Your task to perform on an android device: turn notification dots on Image 0: 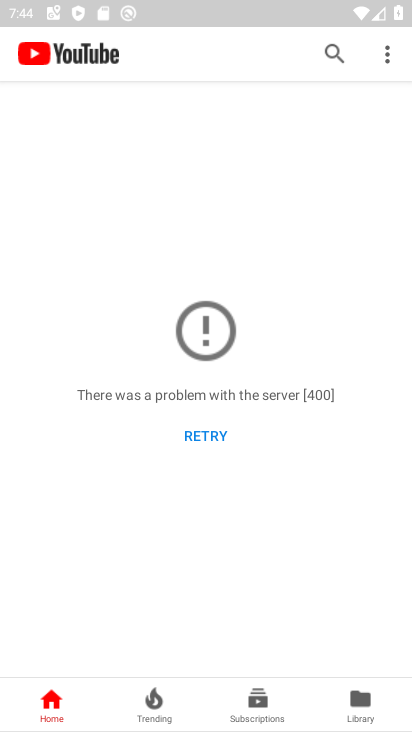
Step 0: press home button
Your task to perform on an android device: turn notification dots on Image 1: 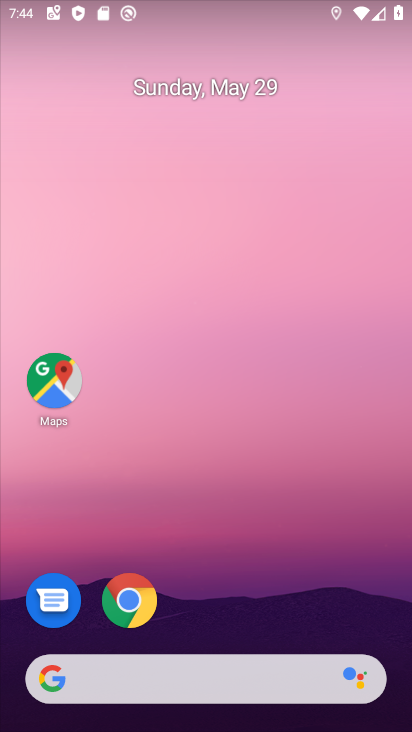
Step 1: click (233, 2)
Your task to perform on an android device: turn notification dots on Image 2: 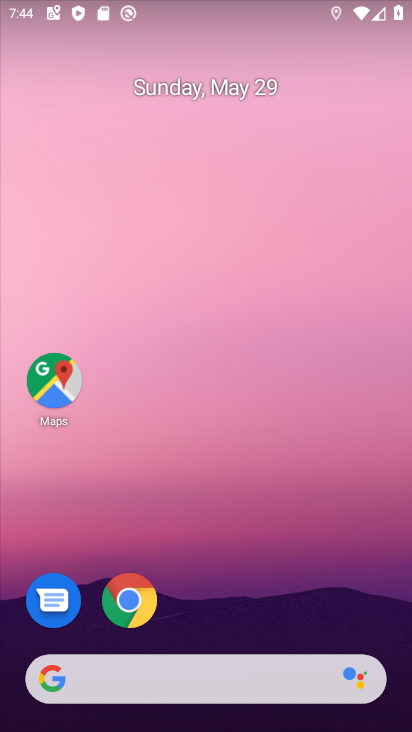
Step 2: drag from (257, 554) to (256, 0)
Your task to perform on an android device: turn notification dots on Image 3: 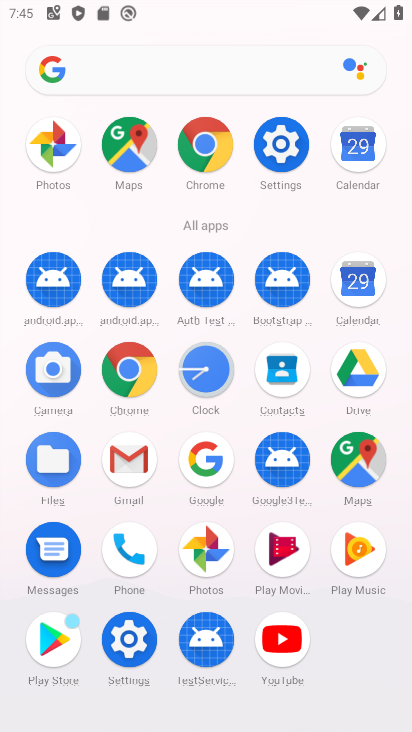
Step 3: click (275, 140)
Your task to perform on an android device: turn notification dots on Image 4: 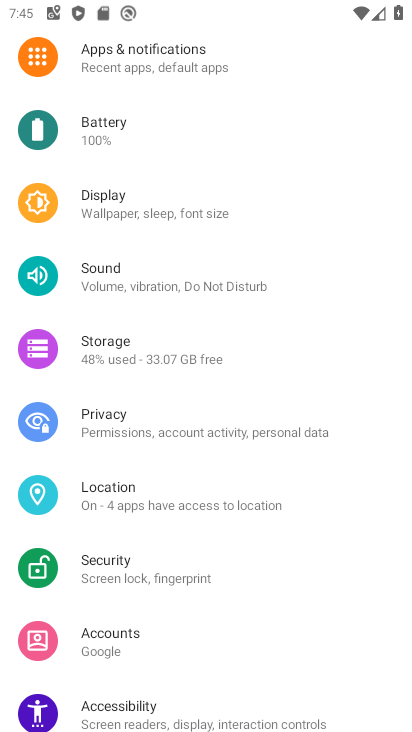
Step 4: click (201, 55)
Your task to perform on an android device: turn notification dots on Image 5: 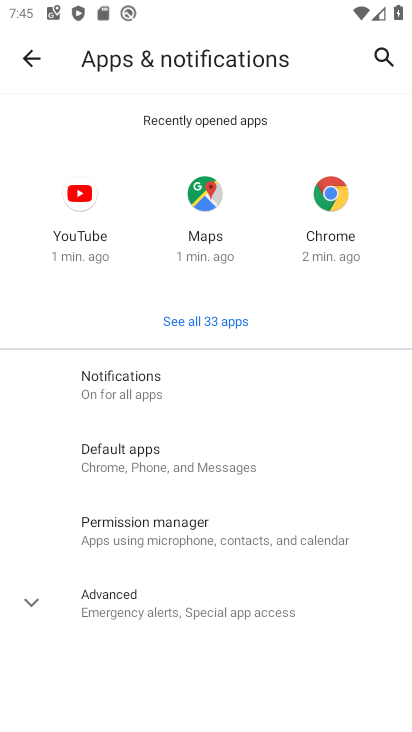
Step 5: click (135, 375)
Your task to perform on an android device: turn notification dots on Image 6: 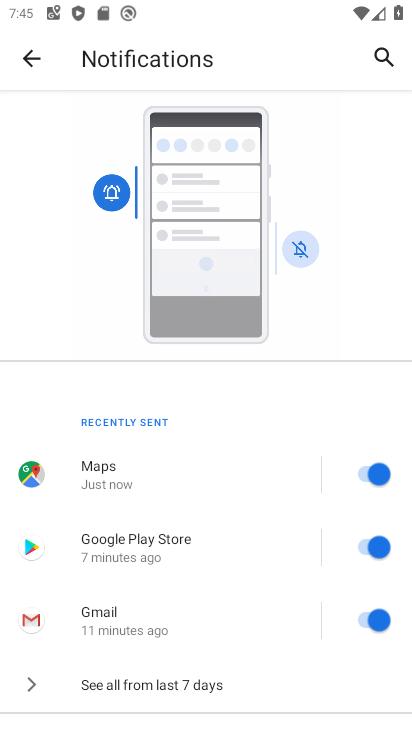
Step 6: drag from (161, 661) to (205, 124)
Your task to perform on an android device: turn notification dots on Image 7: 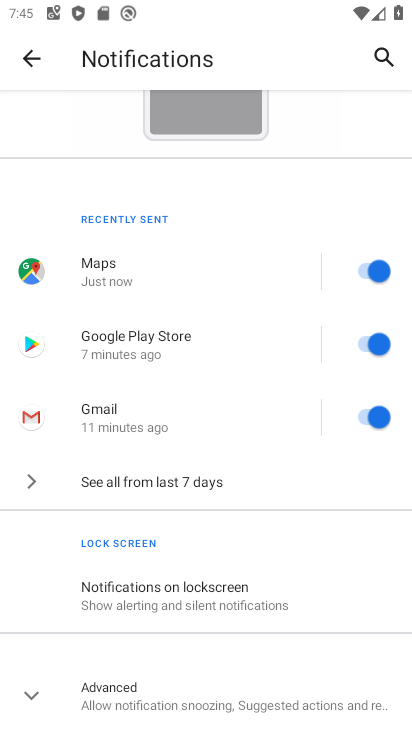
Step 7: click (114, 714)
Your task to perform on an android device: turn notification dots on Image 8: 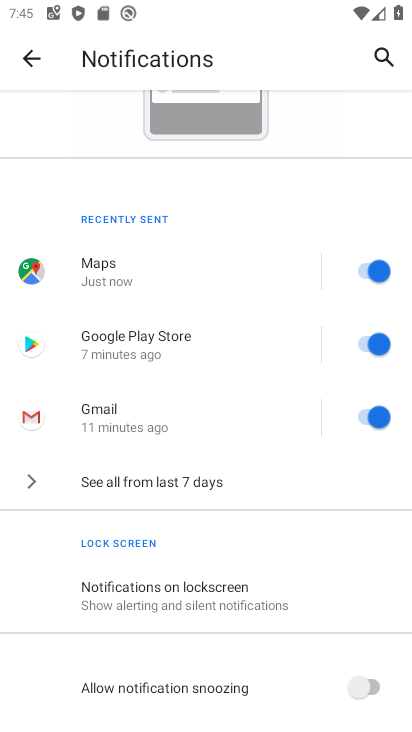
Step 8: task complete